Your task to perform on an android device: Clear all items from cart on newegg. Search for "asus zenbook" on newegg, select the first entry, add it to the cart, then select checkout. Image 0: 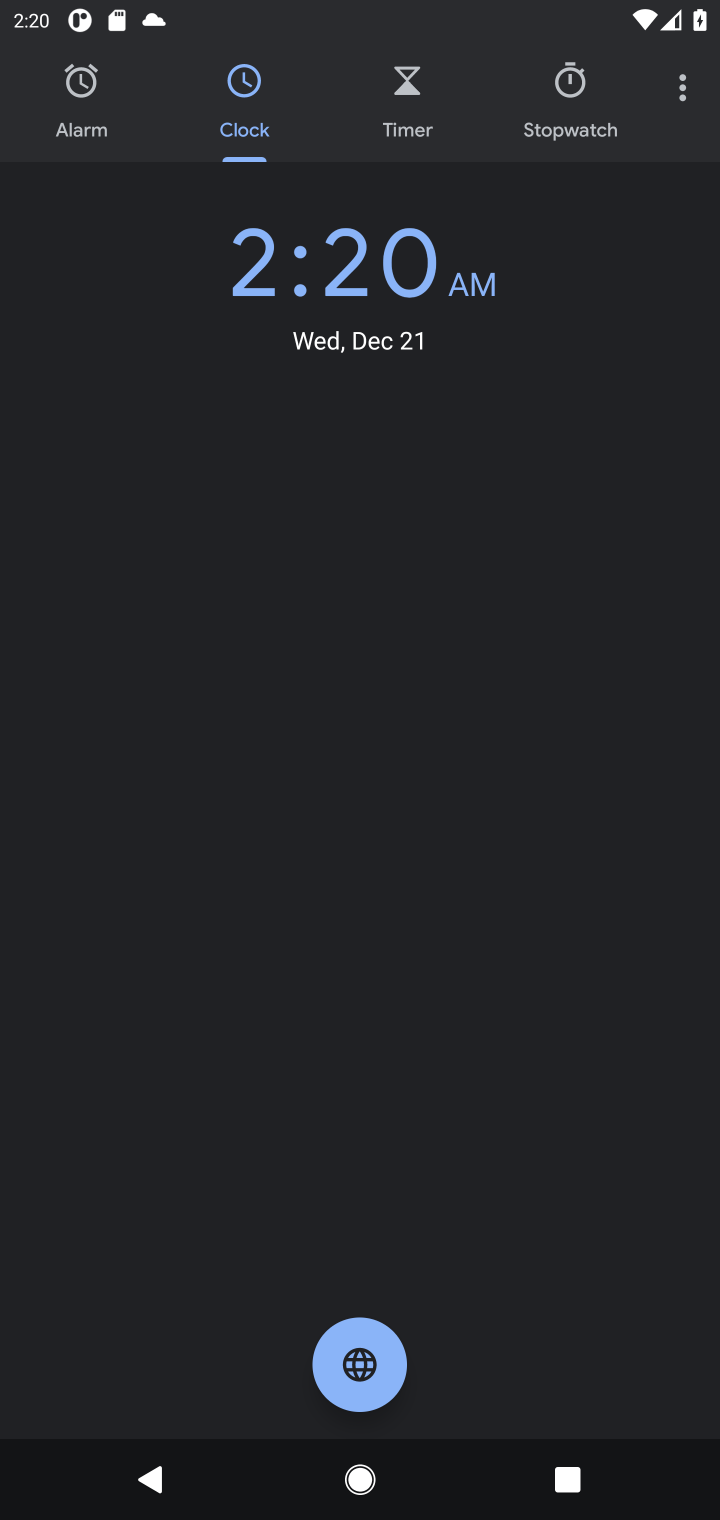
Step 0: press home button
Your task to perform on an android device: Clear all items from cart on newegg. Search for "asus zenbook" on newegg, select the first entry, add it to the cart, then select checkout. Image 1: 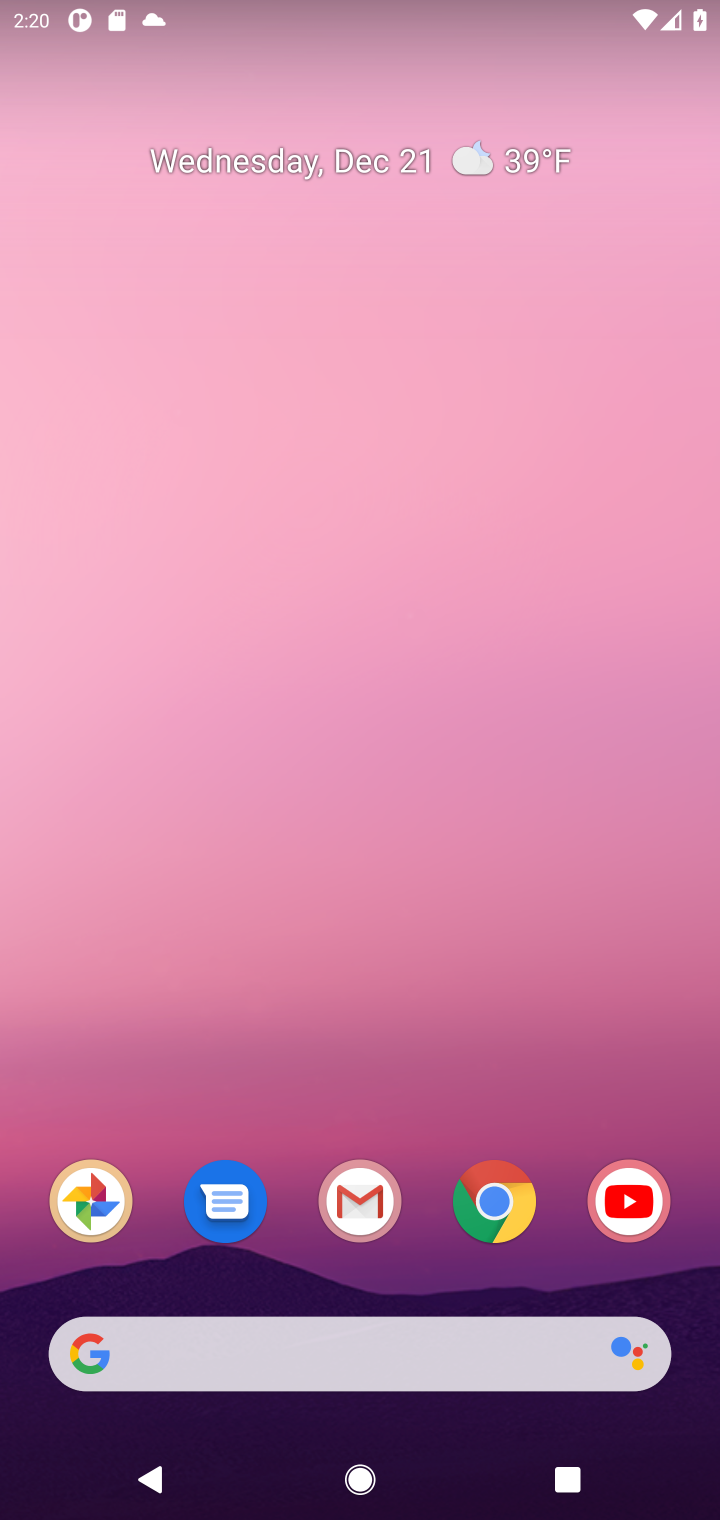
Step 1: click (490, 1211)
Your task to perform on an android device: Clear all items from cart on newegg. Search for "asus zenbook" on newegg, select the first entry, add it to the cart, then select checkout. Image 2: 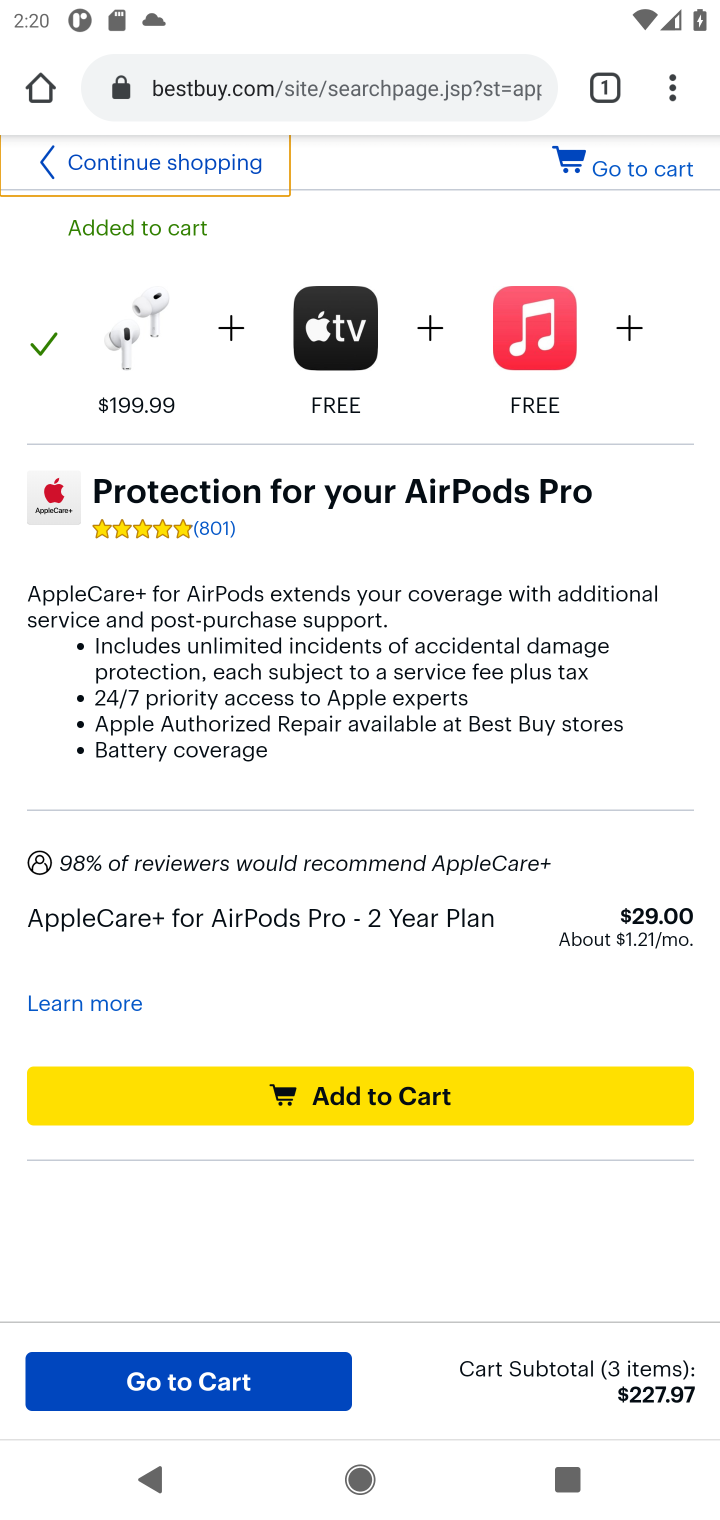
Step 2: click (235, 80)
Your task to perform on an android device: Clear all items from cart on newegg. Search for "asus zenbook" on newegg, select the first entry, add it to the cart, then select checkout. Image 3: 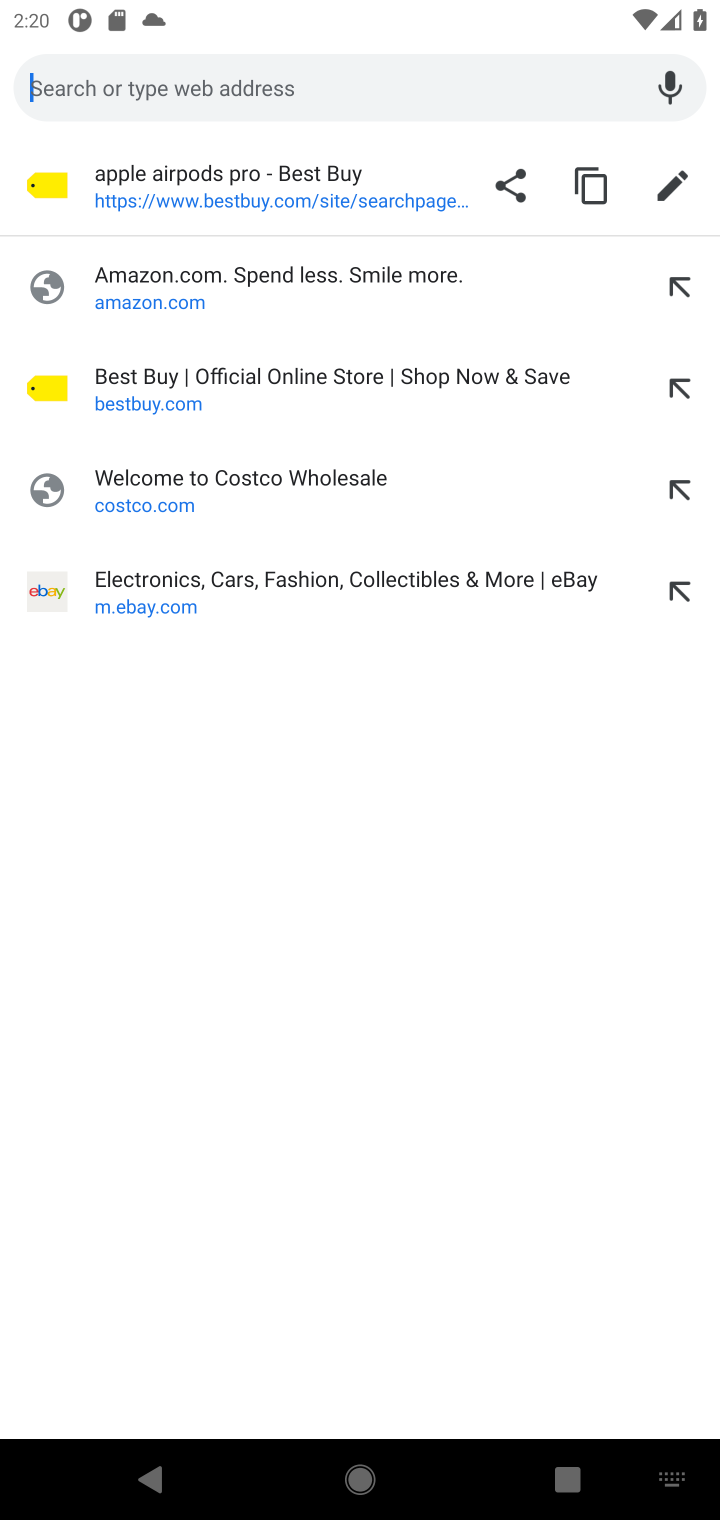
Step 3: type "newegg.com"
Your task to perform on an android device: Clear all items from cart on newegg. Search for "asus zenbook" on newegg, select the first entry, add it to the cart, then select checkout. Image 4: 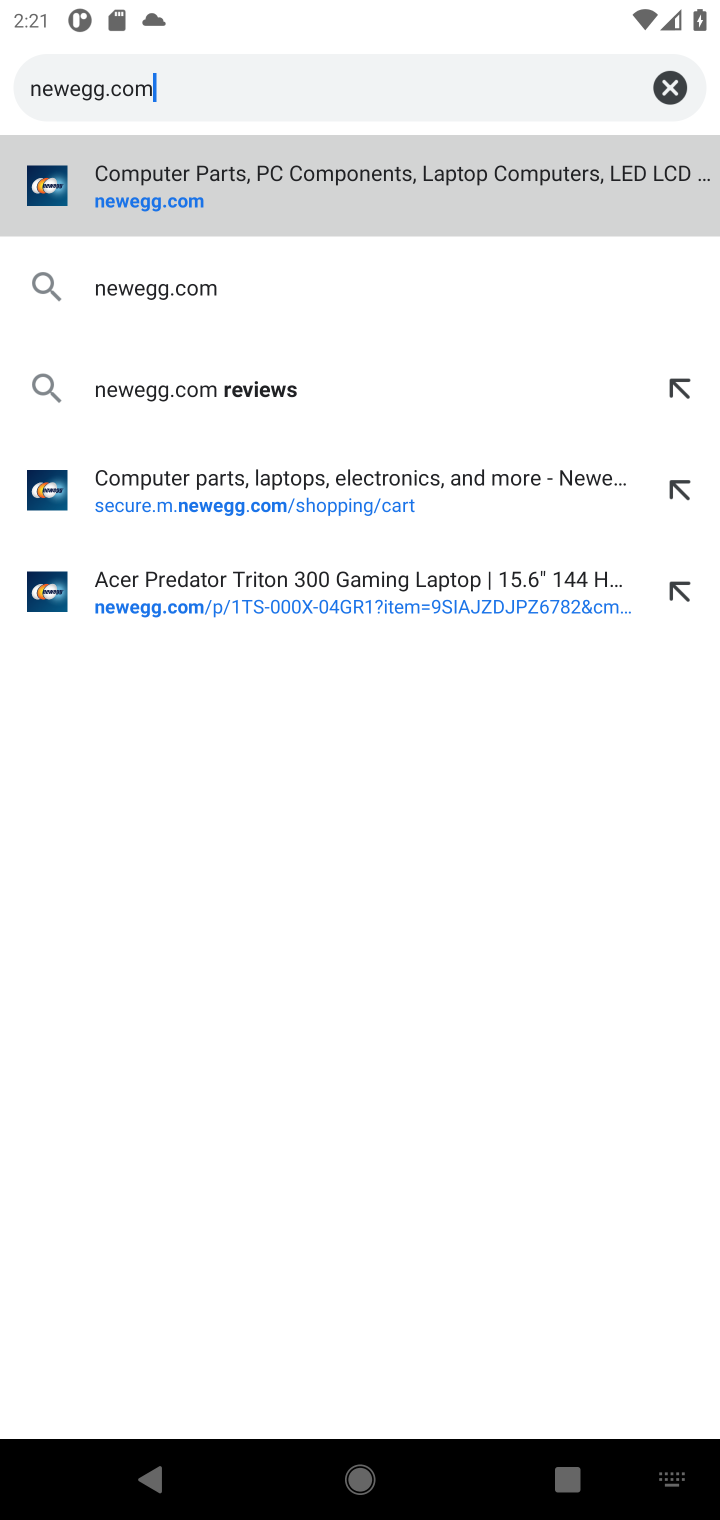
Step 4: click (119, 196)
Your task to perform on an android device: Clear all items from cart on newegg. Search for "asus zenbook" on newegg, select the first entry, add it to the cart, then select checkout. Image 5: 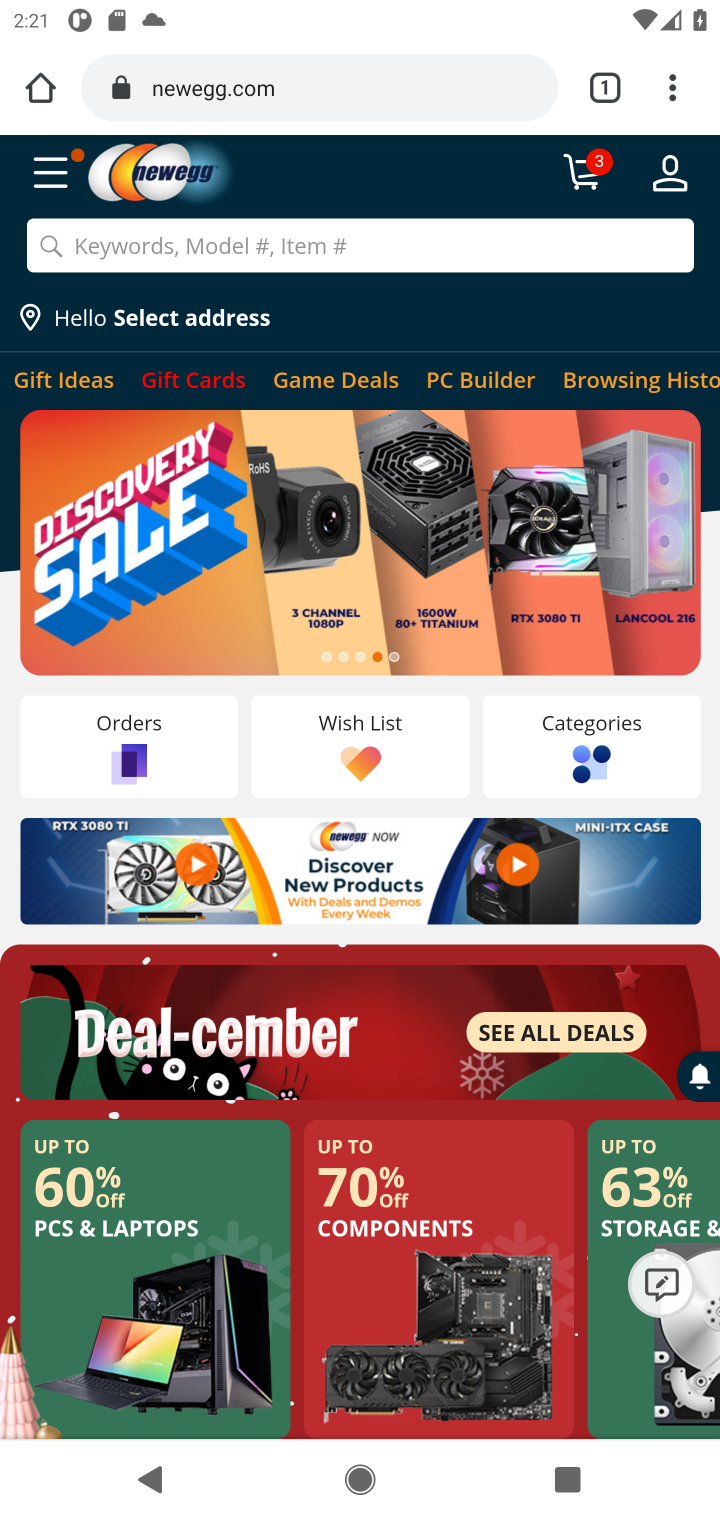
Step 5: click (576, 181)
Your task to perform on an android device: Clear all items from cart on newegg. Search for "asus zenbook" on newegg, select the first entry, add it to the cart, then select checkout. Image 6: 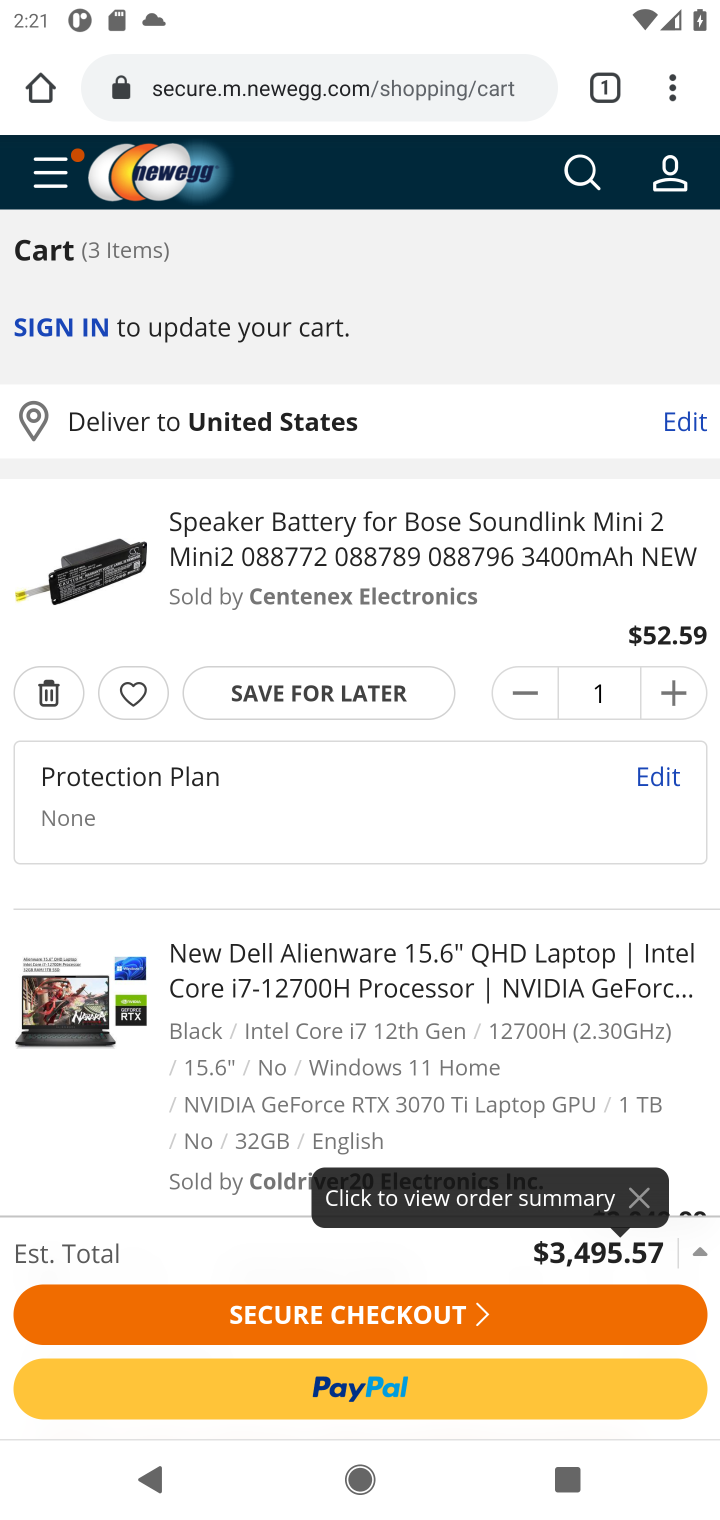
Step 6: click (49, 703)
Your task to perform on an android device: Clear all items from cart on newegg. Search for "asus zenbook" on newegg, select the first entry, add it to the cart, then select checkout. Image 7: 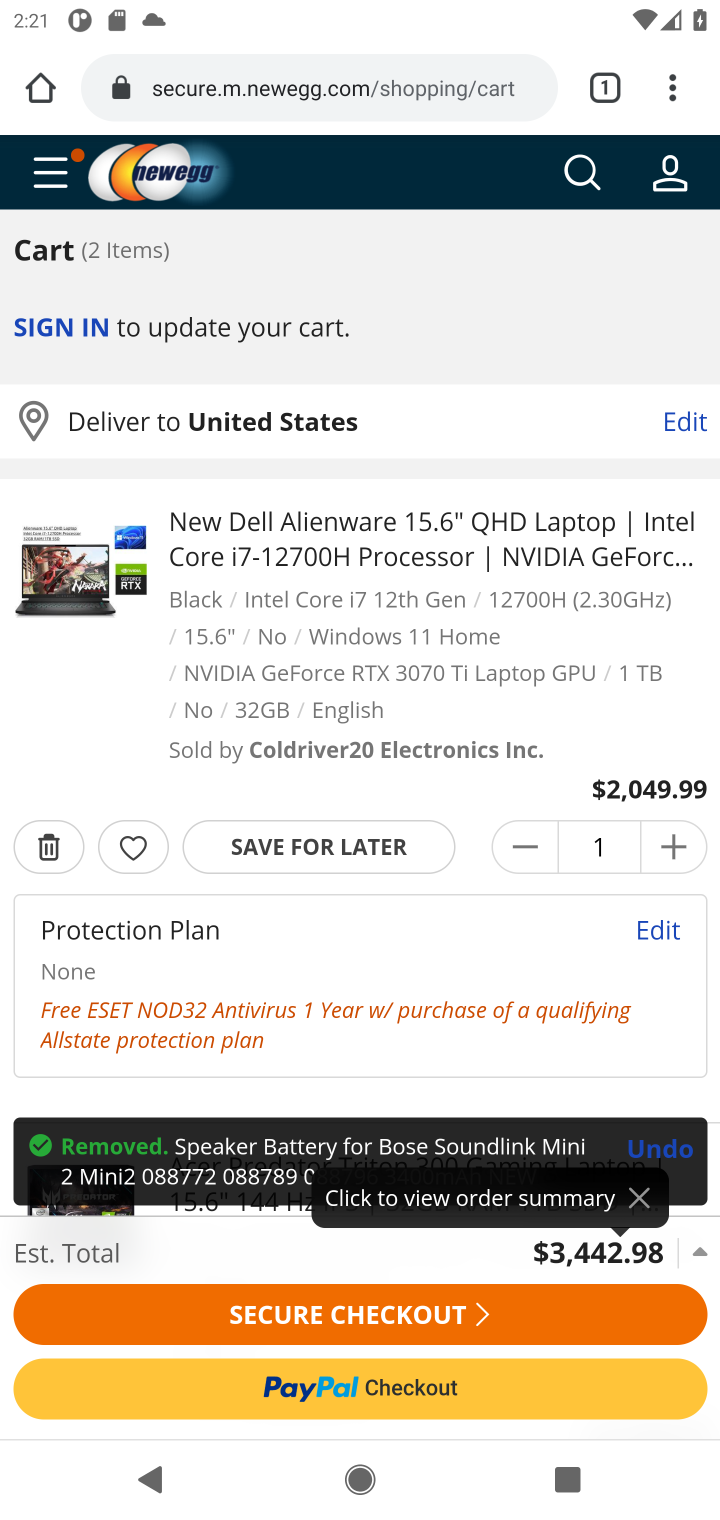
Step 7: click (47, 845)
Your task to perform on an android device: Clear all items from cart on newegg. Search for "asus zenbook" on newegg, select the first entry, add it to the cart, then select checkout. Image 8: 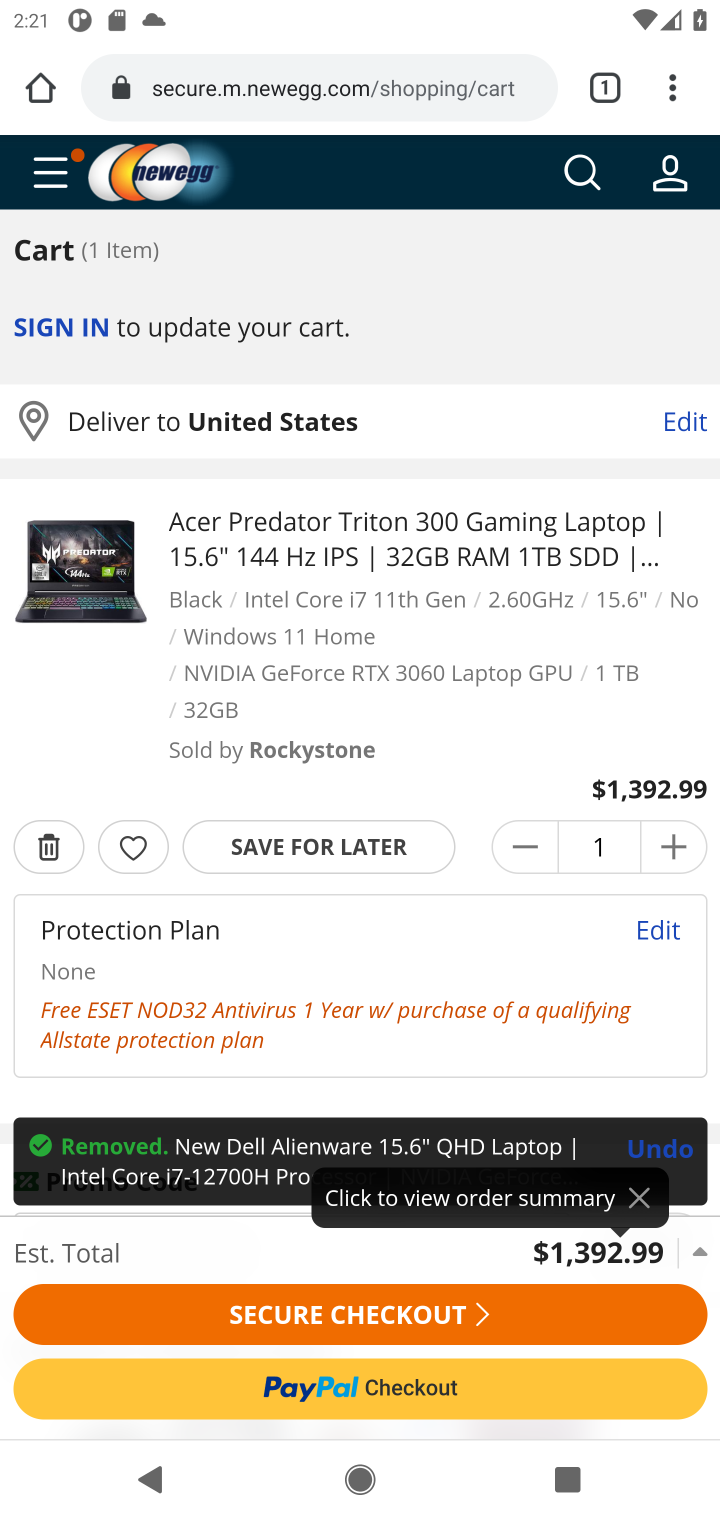
Step 8: click (47, 856)
Your task to perform on an android device: Clear all items from cart on newegg. Search for "asus zenbook" on newegg, select the first entry, add it to the cart, then select checkout. Image 9: 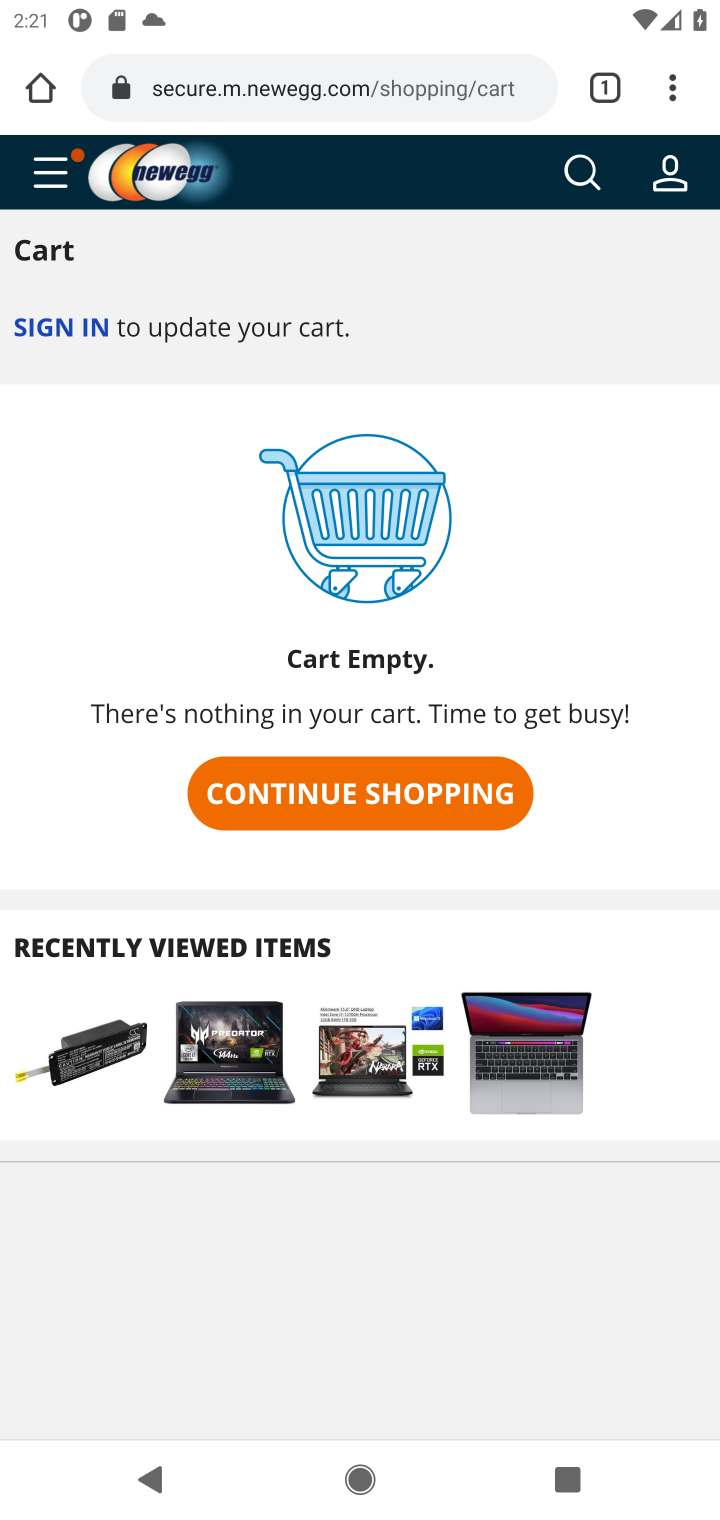
Step 9: click (590, 188)
Your task to perform on an android device: Clear all items from cart on newegg. Search for "asus zenbook" on newegg, select the first entry, add it to the cart, then select checkout. Image 10: 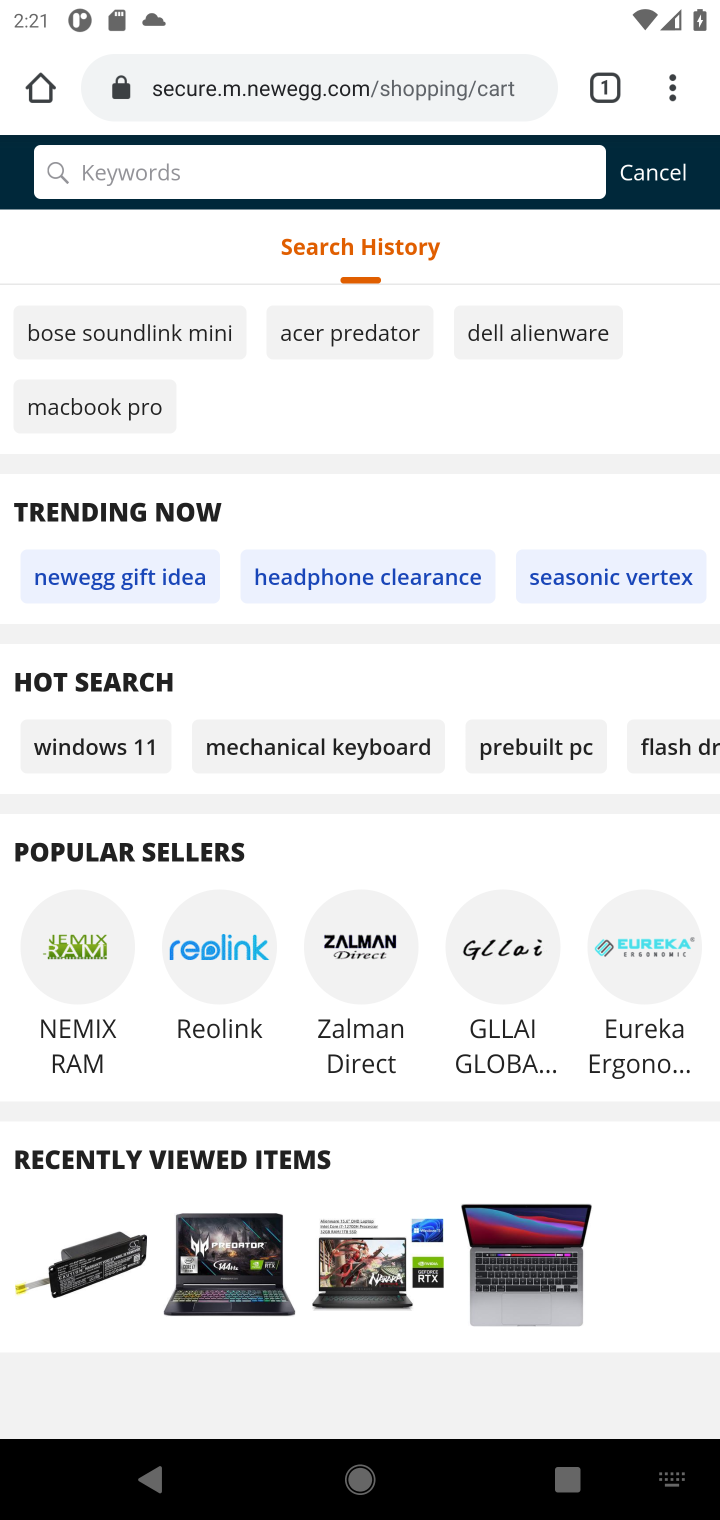
Step 10: type "asus zenbook"
Your task to perform on an android device: Clear all items from cart on newegg. Search for "asus zenbook" on newegg, select the first entry, add it to the cart, then select checkout. Image 11: 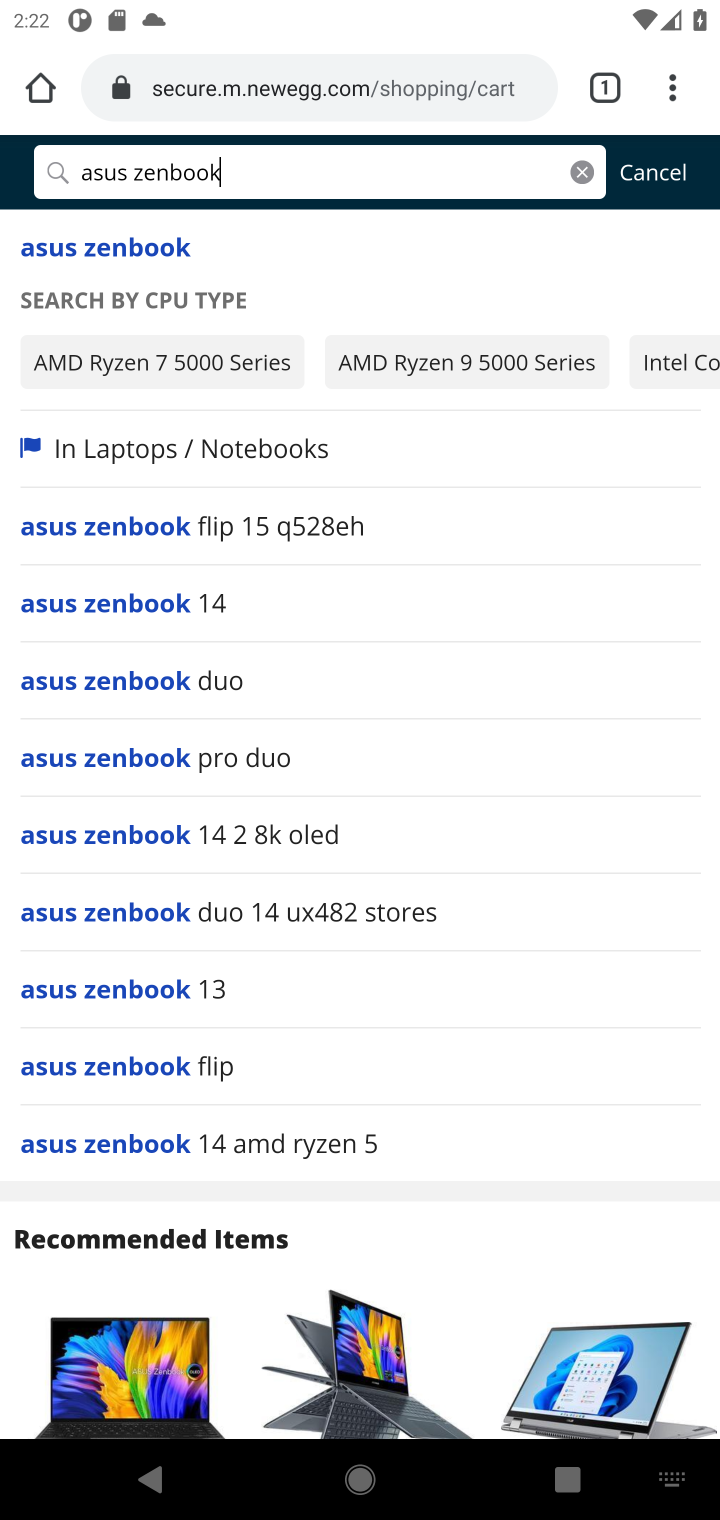
Step 11: click (93, 259)
Your task to perform on an android device: Clear all items from cart on newegg. Search for "asus zenbook" on newegg, select the first entry, add it to the cart, then select checkout. Image 12: 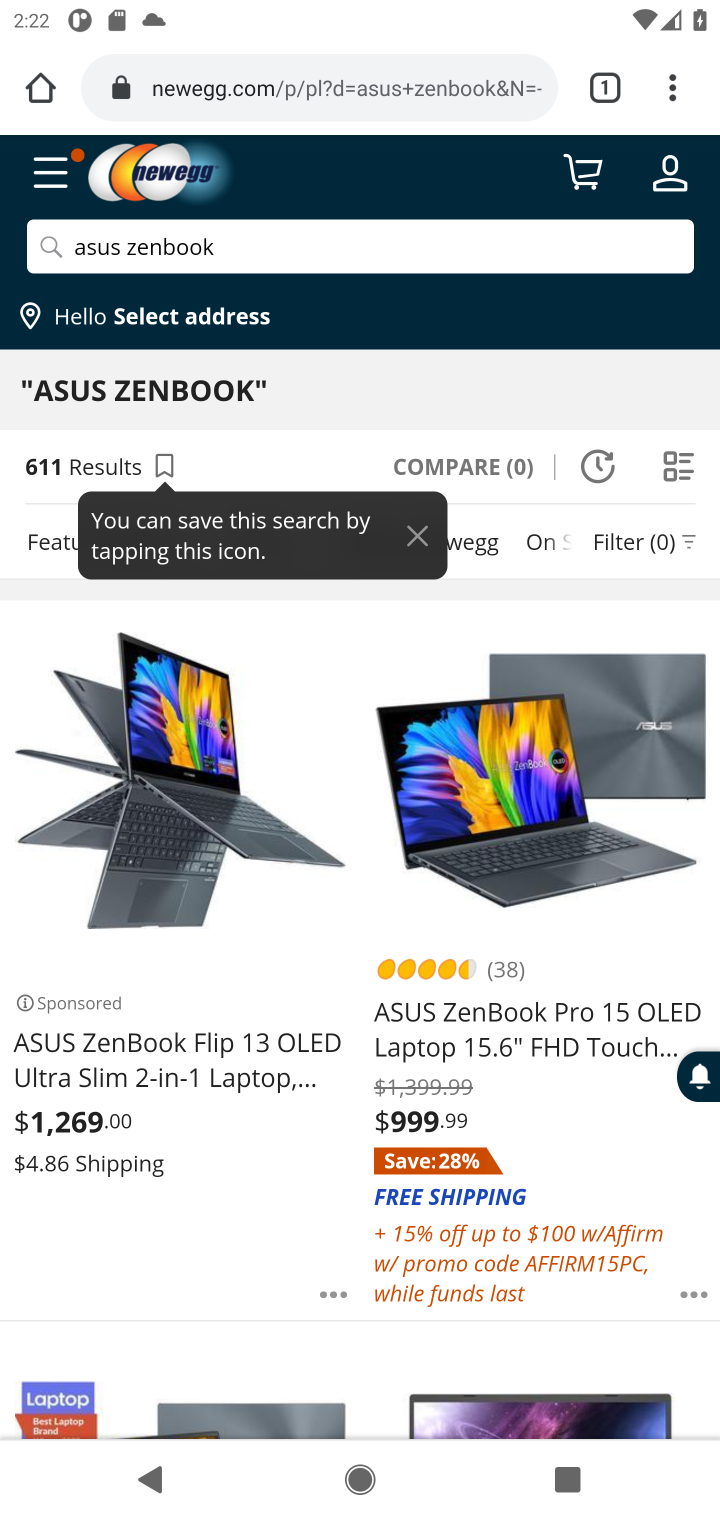
Step 12: click (96, 1071)
Your task to perform on an android device: Clear all items from cart on newegg. Search for "asus zenbook" on newegg, select the first entry, add it to the cart, then select checkout. Image 13: 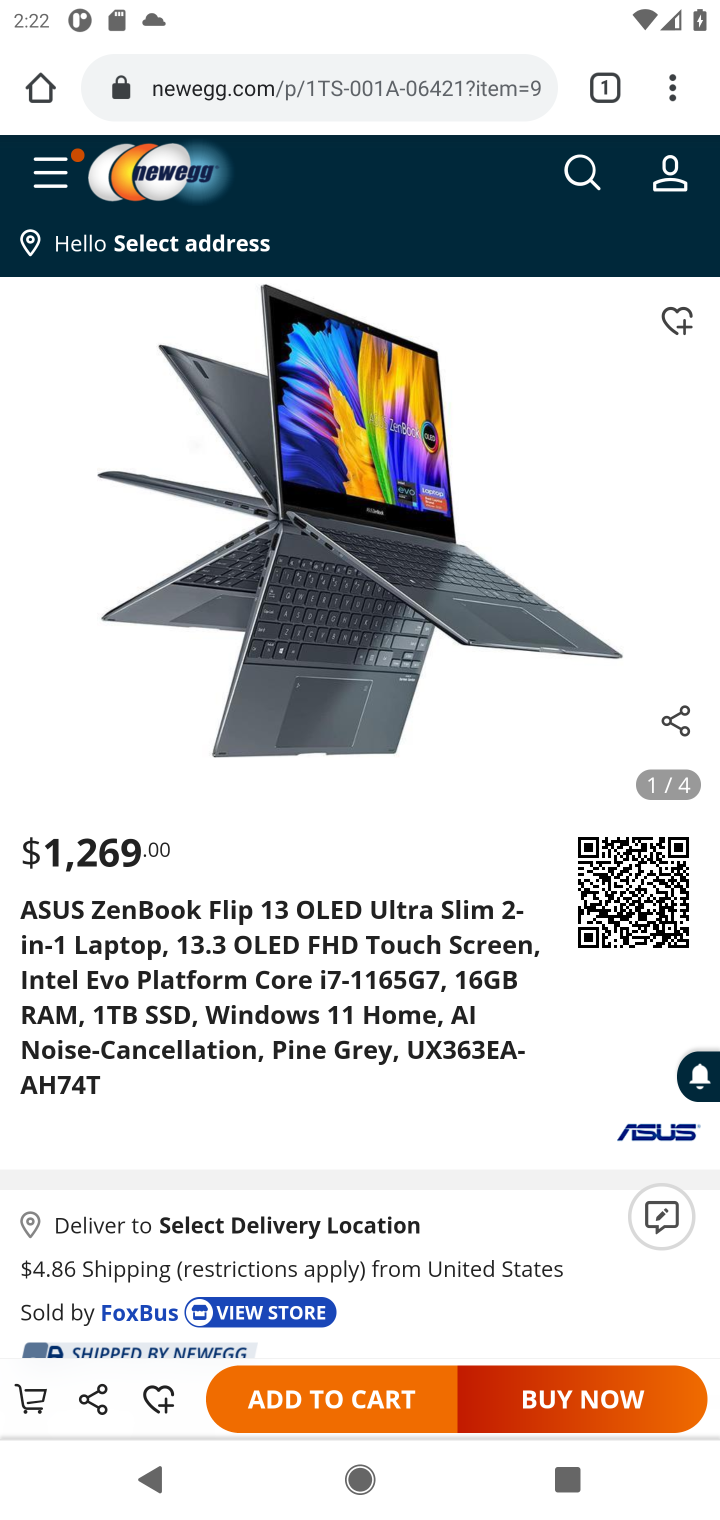
Step 13: click (275, 1390)
Your task to perform on an android device: Clear all items from cart on newegg. Search for "asus zenbook" on newegg, select the first entry, add it to the cart, then select checkout. Image 14: 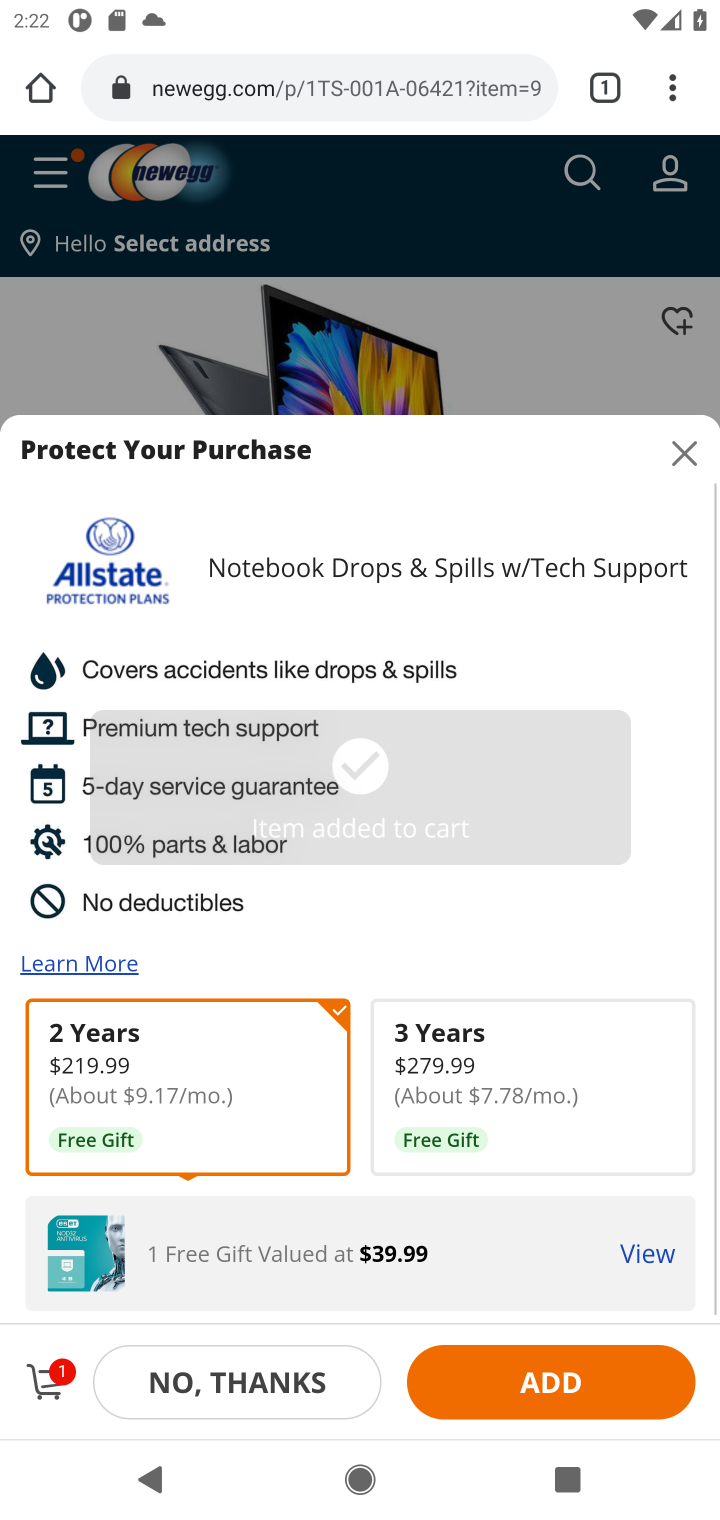
Step 14: click (55, 1385)
Your task to perform on an android device: Clear all items from cart on newegg. Search for "asus zenbook" on newegg, select the first entry, add it to the cart, then select checkout. Image 15: 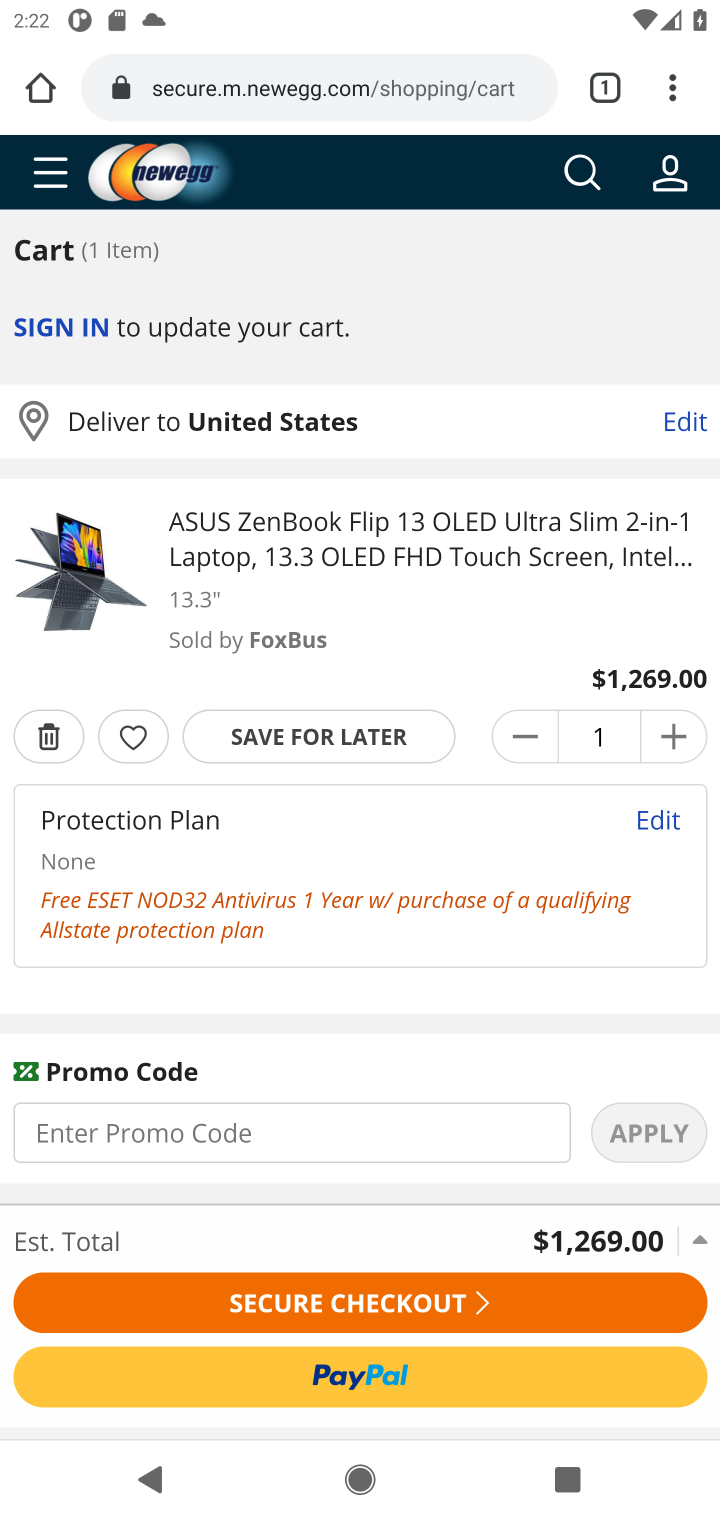
Step 15: click (275, 1309)
Your task to perform on an android device: Clear all items from cart on newegg. Search for "asus zenbook" on newegg, select the first entry, add it to the cart, then select checkout. Image 16: 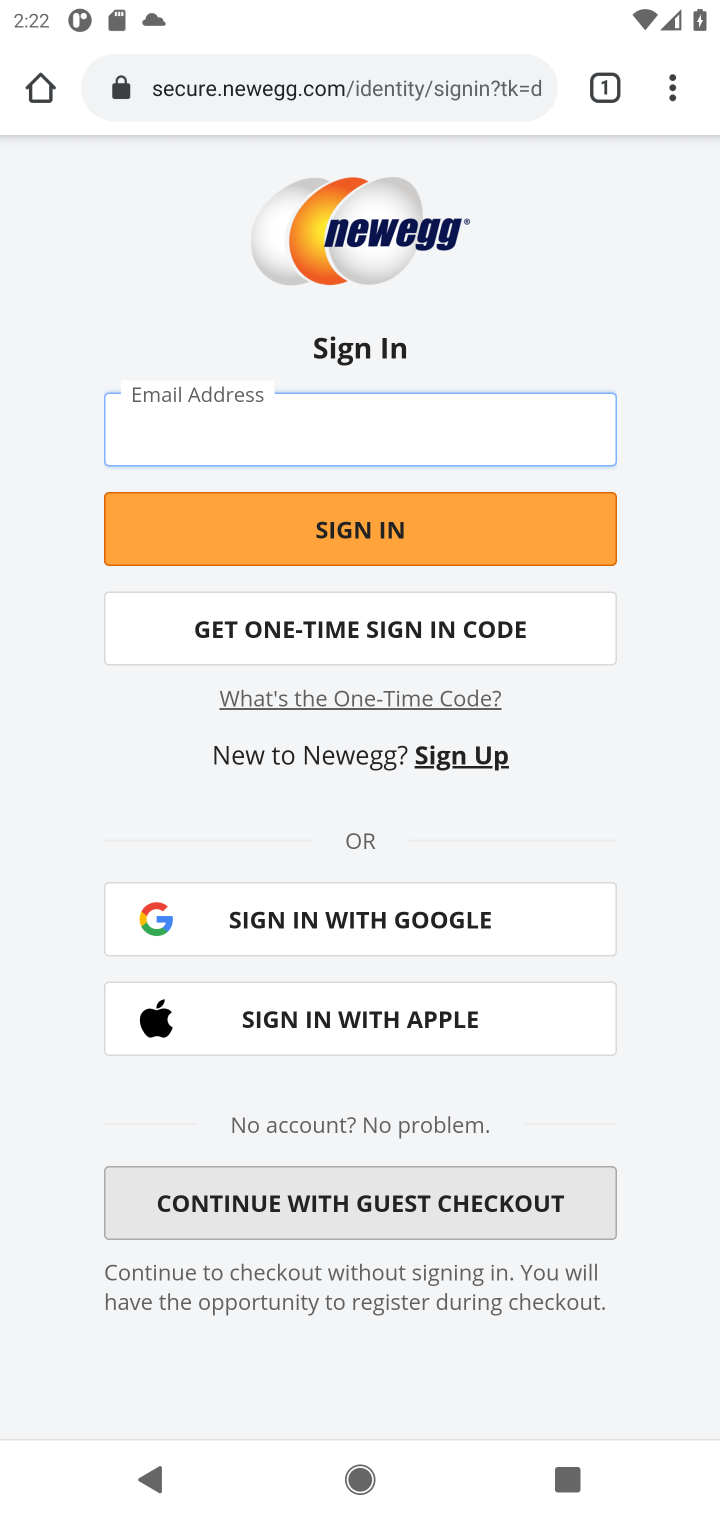
Step 16: task complete